Your task to perform on an android device: Search for flights from Mexico city to Zurich Image 0: 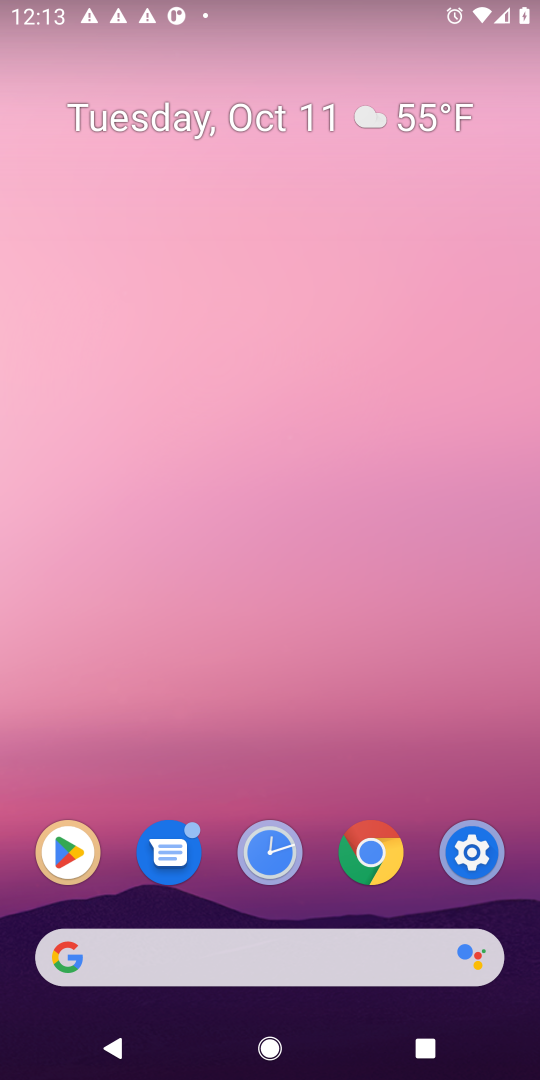
Step 0: click (392, 842)
Your task to perform on an android device: Search for flights from Mexico city to Zurich Image 1: 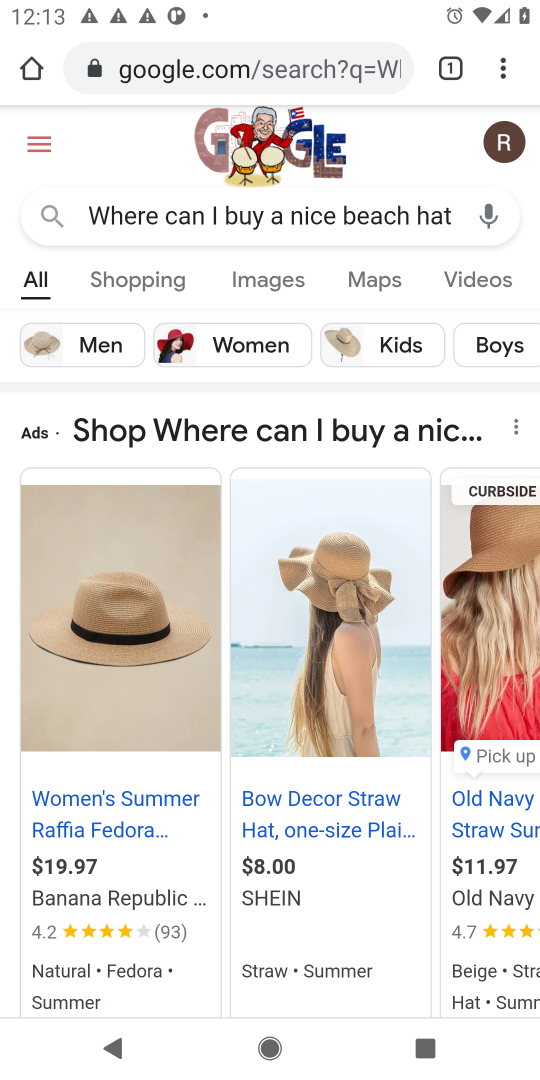
Step 1: click (178, 86)
Your task to perform on an android device: Search for flights from Mexico city to Zurich Image 2: 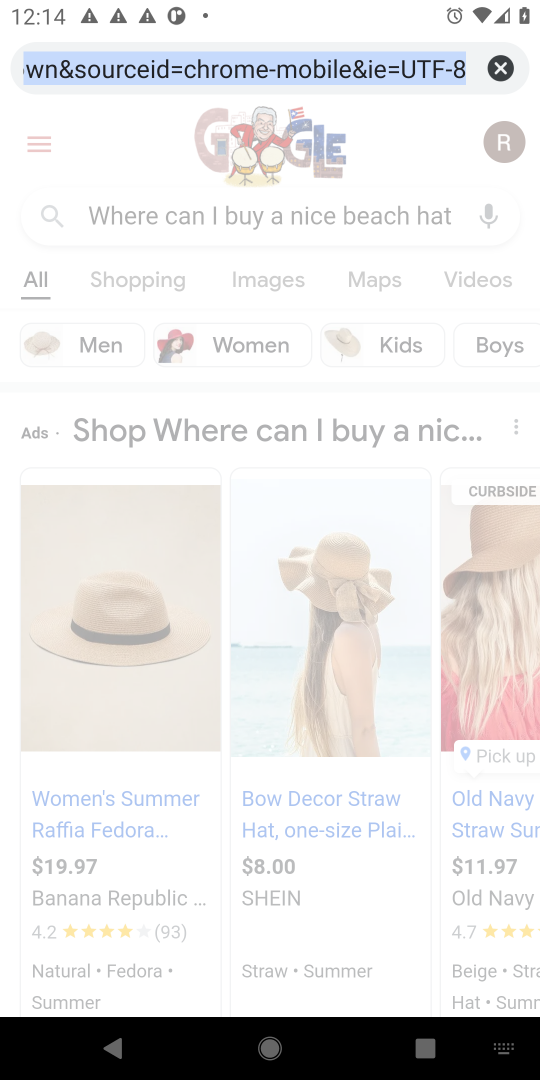
Step 2: type "Where can I buy a nice beach hat?"
Your task to perform on an android device: Search for flights from Mexico city to Zurich Image 3: 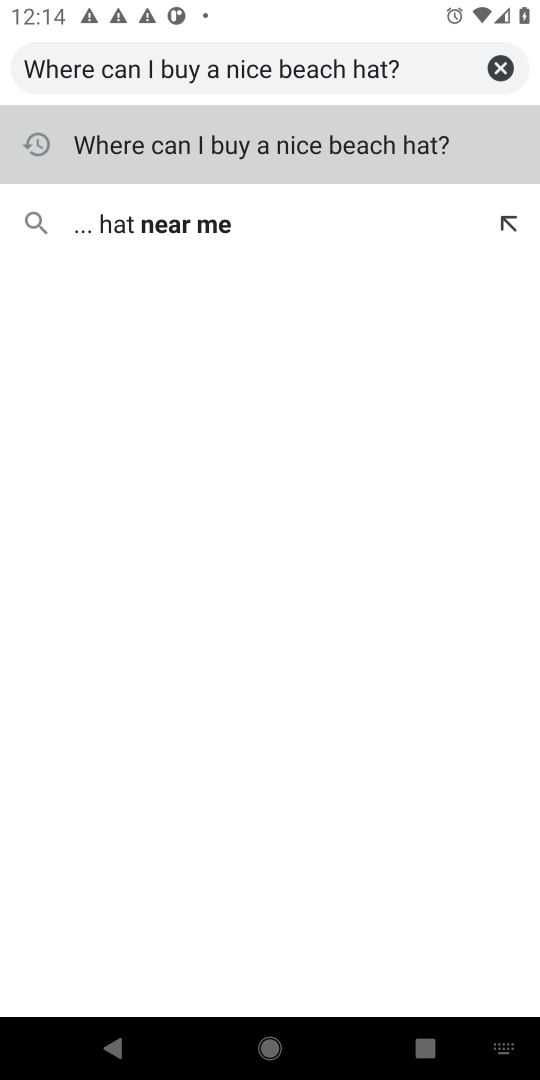
Step 3: click (501, 62)
Your task to perform on an android device: Search for flights from Mexico city to Zurich Image 4: 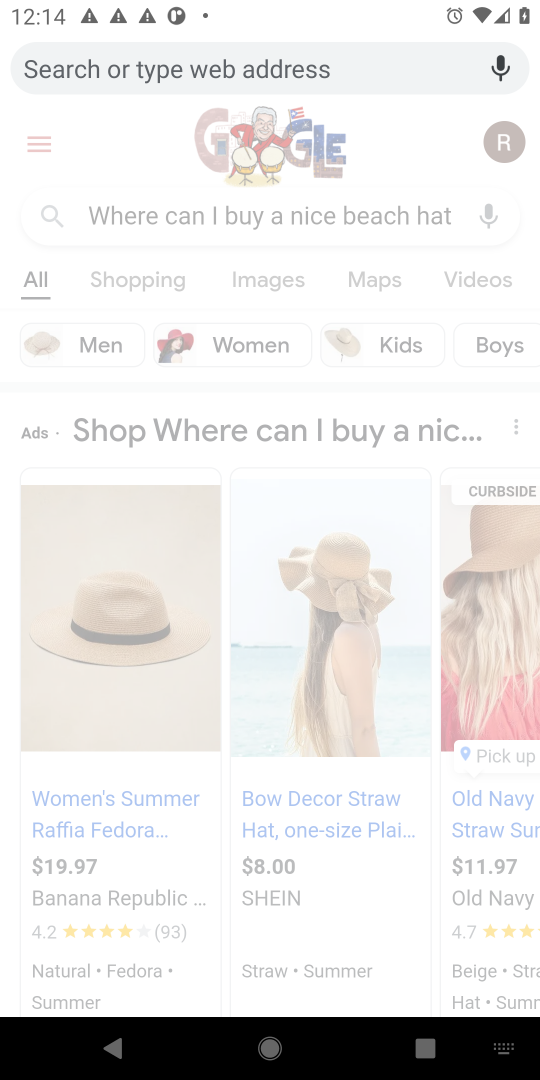
Step 4: type "flights from Mexico city to Zurich"
Your task to perform on an android device: Search for flights from Mexico city to Zurich Image 5: 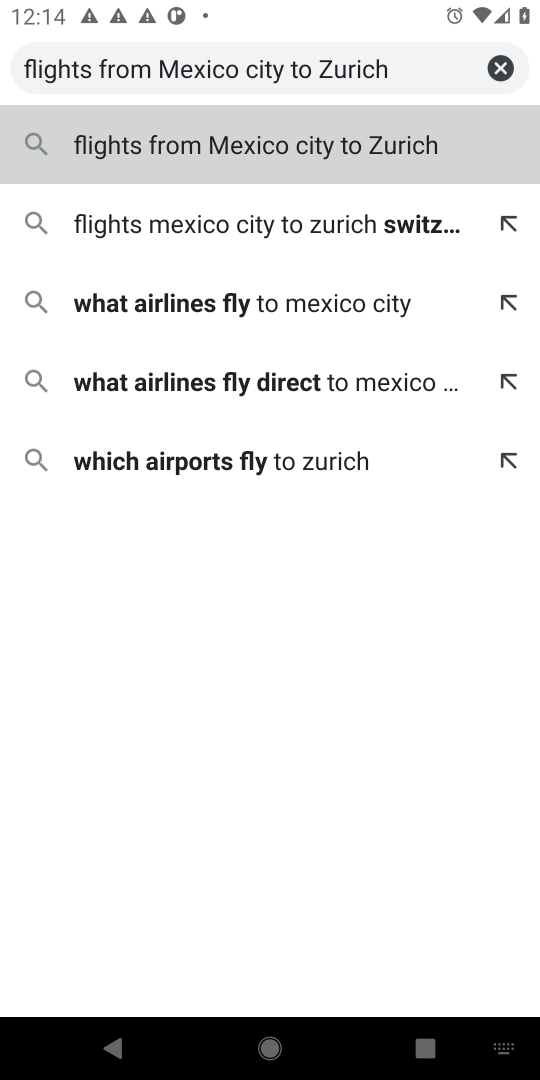
Step 5: click (348, 154)
Your task to perform on an android device: Search for flights from Mexico city to Zurich Image 6: 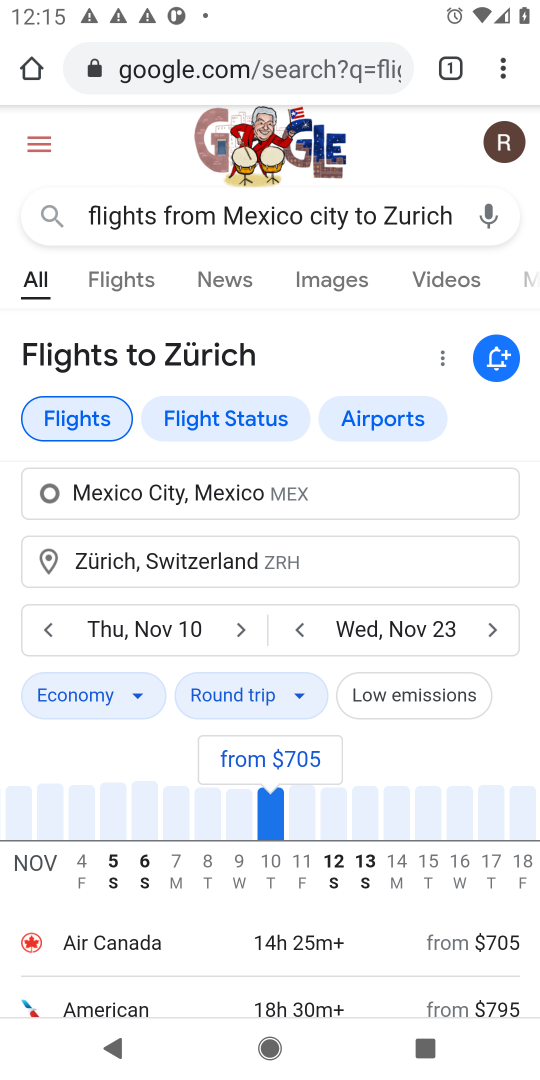
Step 6: click (114, 281)
Your task to perform on an android device: Search for flights from Mexico city to Zurich Image 7: 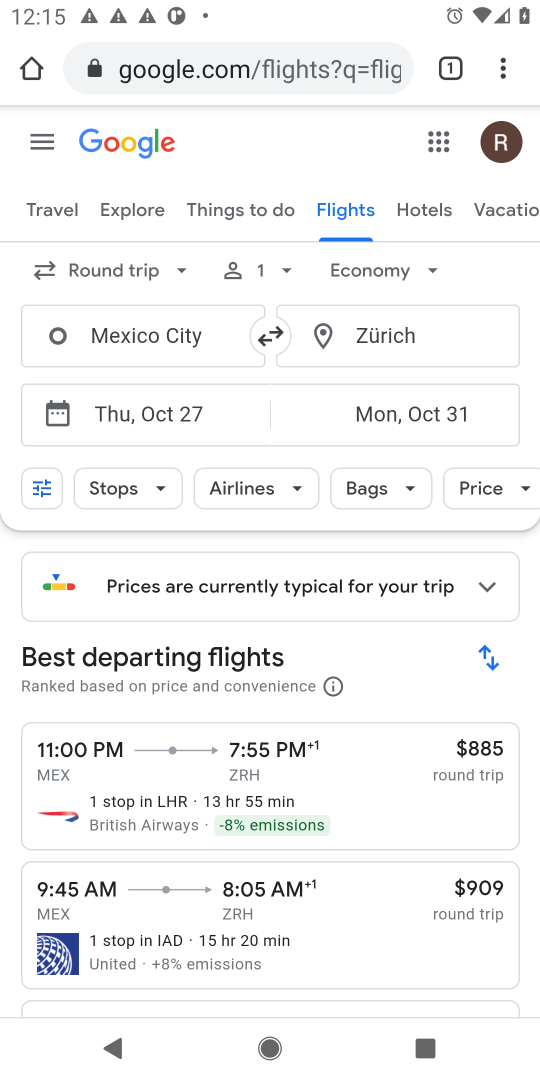
Step 7: task complete